Your task to perform on an android device: Open the phone app and click the voicemail tab. Image 0: 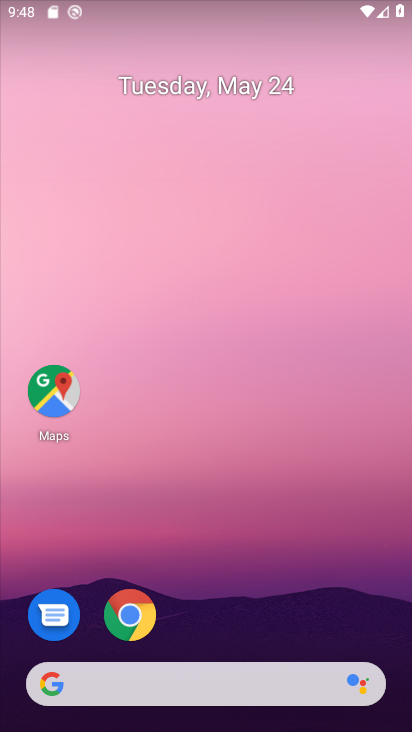
Step 0: drag from (387, 641) to (372, 203)
Your task to perform on an android device: Open the phone app and click the voicemail tab. Image 1: 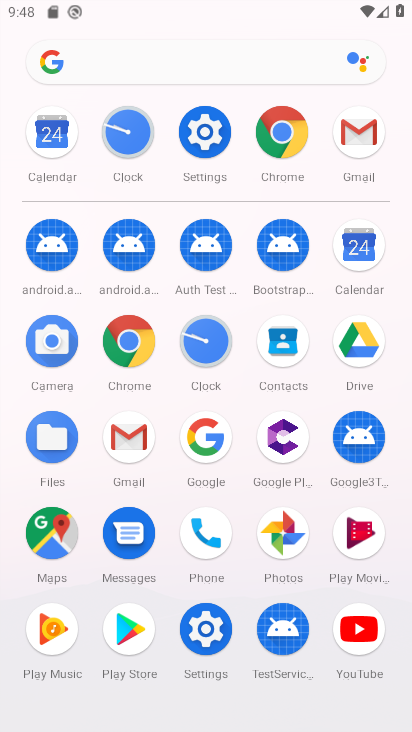
Step 1: click (209, 540)
Your task to perform on an android device: Open the phone app and click the voicemail tab. Image 2: 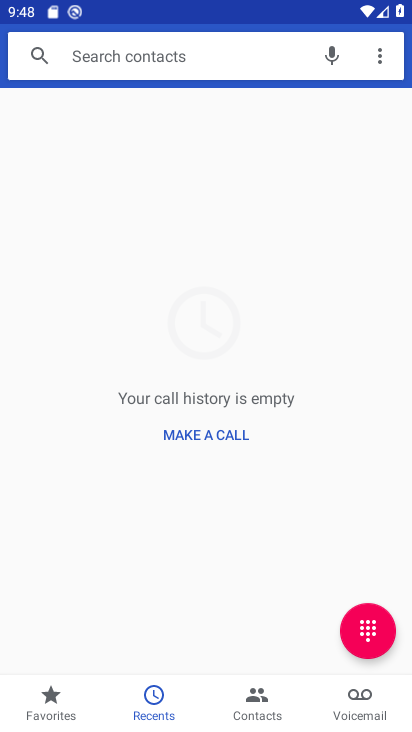
Step 2: click (361, 711)
Your task to perform on an android device: Open the phone app and click the voicemail tab. Image 3: 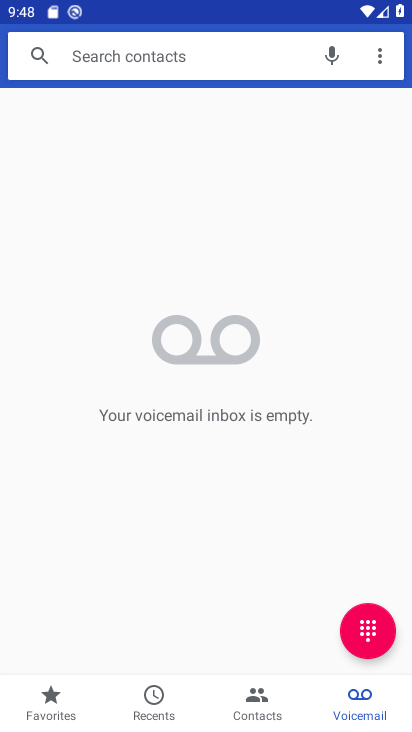
Step 3: task complete